Your task to perform on an android device: turn on airplane mode Image 0: 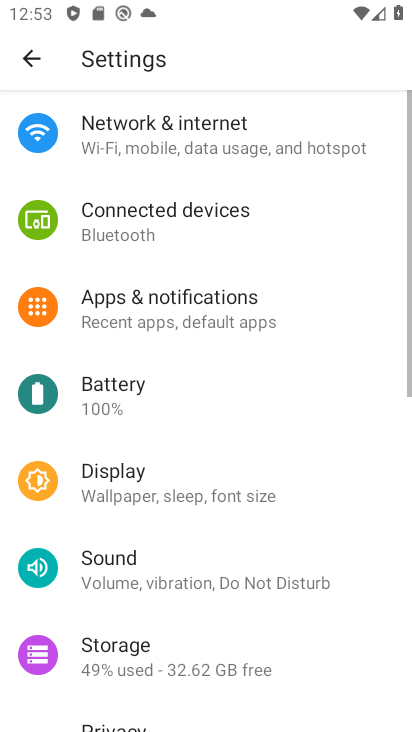
Step 0: press home button
Your task to perform on an android device: turn on airplane mode Image 1: 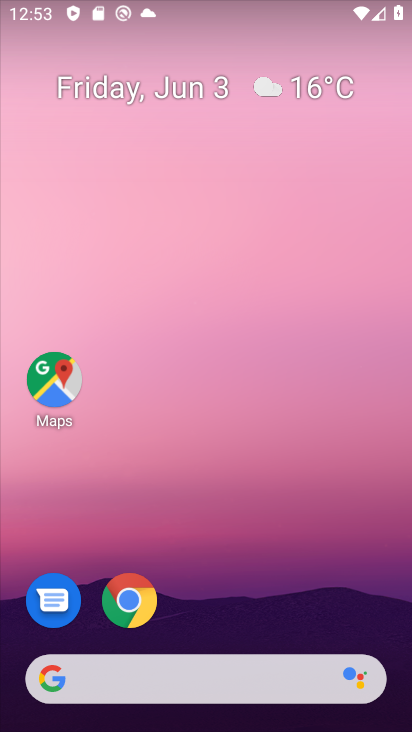
Step 1: drag from (187, 626) to (216, 209)
Your task to perform on an android device: turn on airplane mode Image 2: 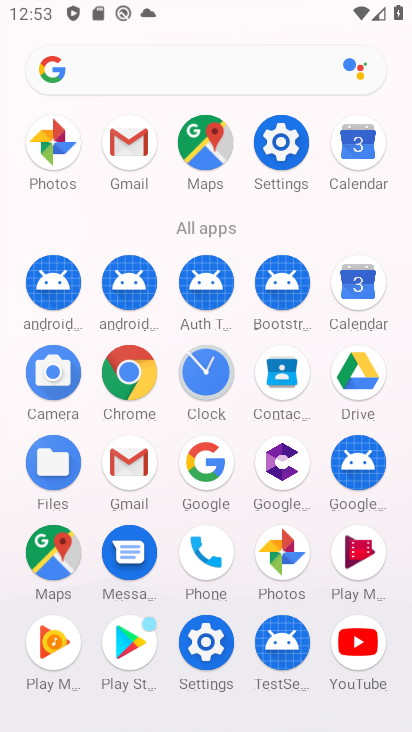
Step 2: click (294, 161)
Your task to perform on an android device: turn on airplane mode Image 3: 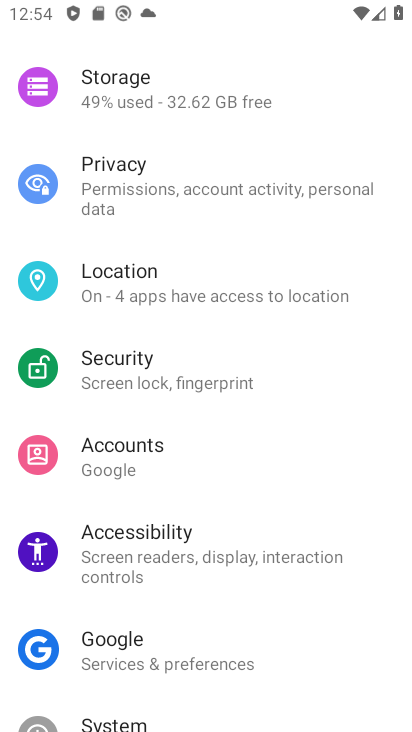
Step 3: drag from (233, 186) to (194, 488)
Your task to perform on an android device: turn on airplane mode Image 4: 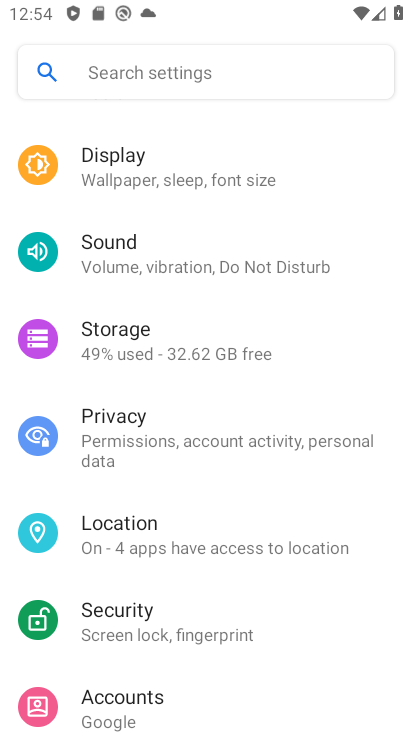
Step 4: drag from (100, 193) to (125, 495)
Your task to perform on an android device: turn on airplane mode Image 5: 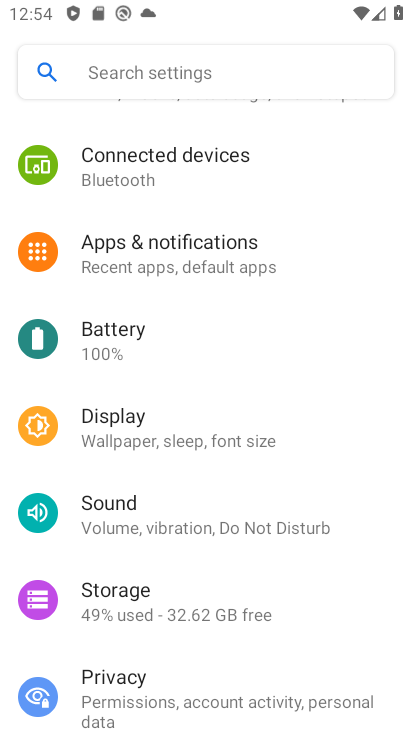
Step 5: drag from (102, 205) to (217, 590)
Your task to perform on an android device: turn on airplane mode Image 6: 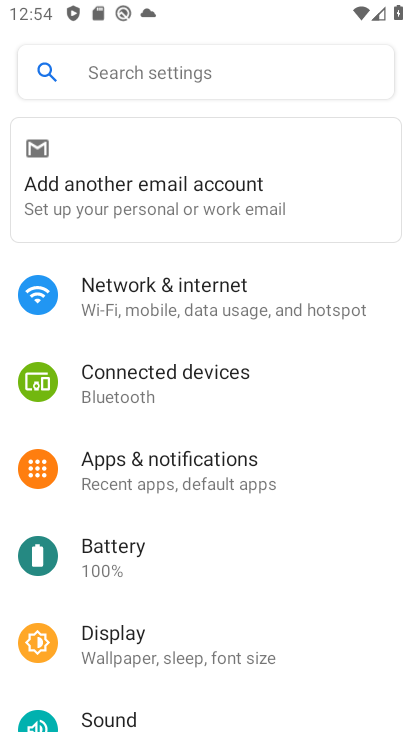
Step 6: click (148, 303)
Your task to perform on an android device: turn on airplane mode Image 7: 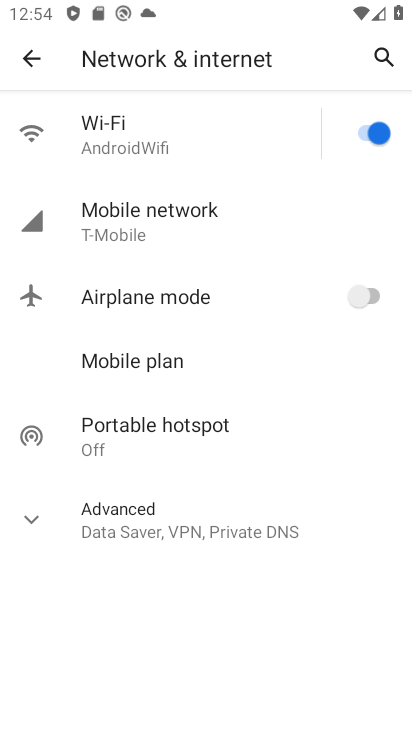
Step 7: click (366, 289)
Your task to perform on an android device: turn on airplane mode Image 8: 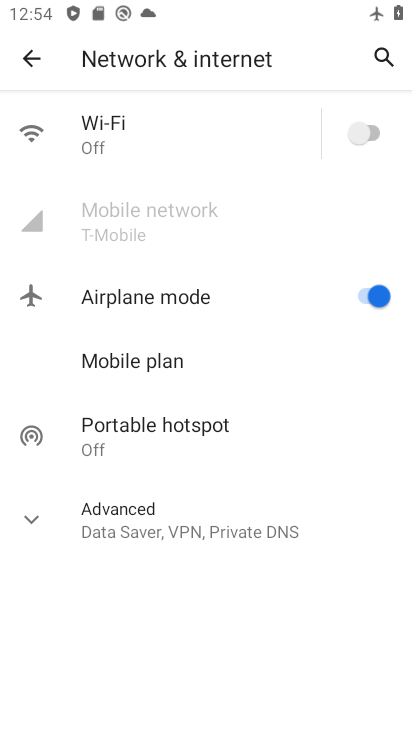
Step 8: task complete